Your task to perform on an android device: toggle pop-ups in chrome Image 0: 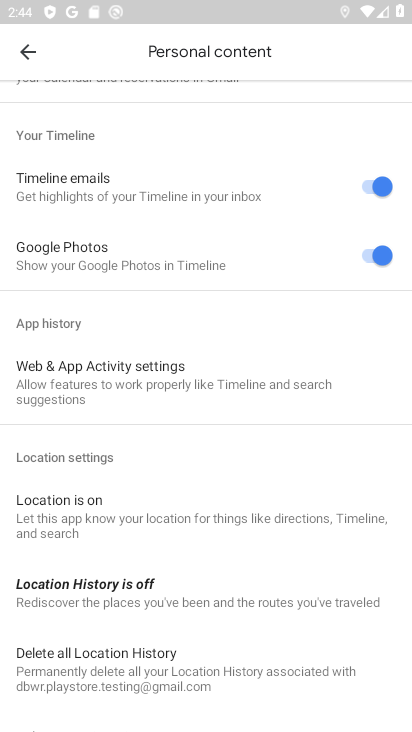
Step 0: press home button
Your task to perform on an android device: toggle pop-ups in chrome Image 1: 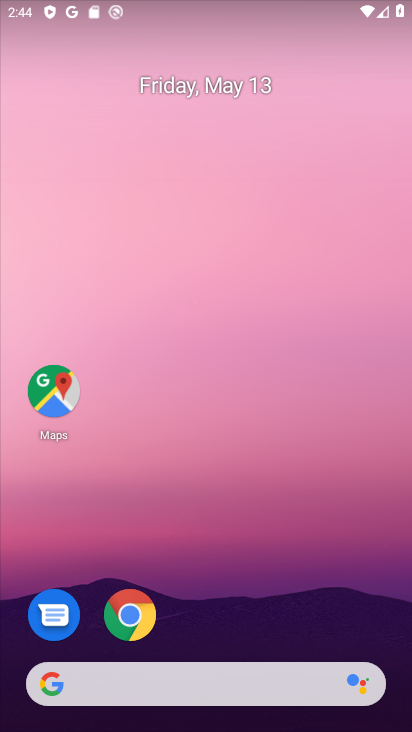
Step 1: drag from (256, 679) to (359, 283)
Your task to perform on an android device: toggle pop-ups in chrome Image 2: 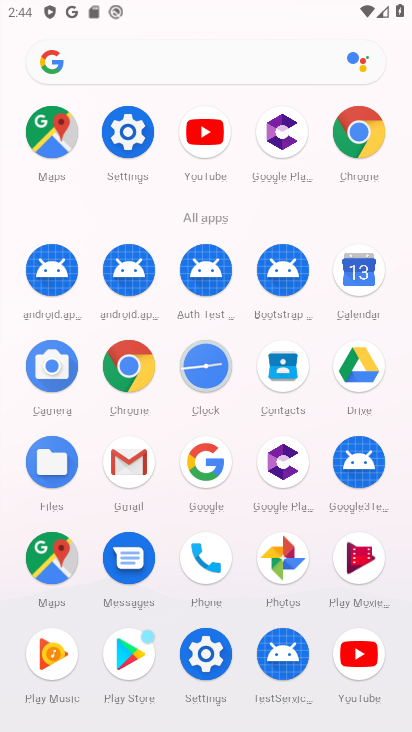
Step 2: click (357, 141)
Your task to perform on an android device: toggle pop-ups in chrome Image 3: 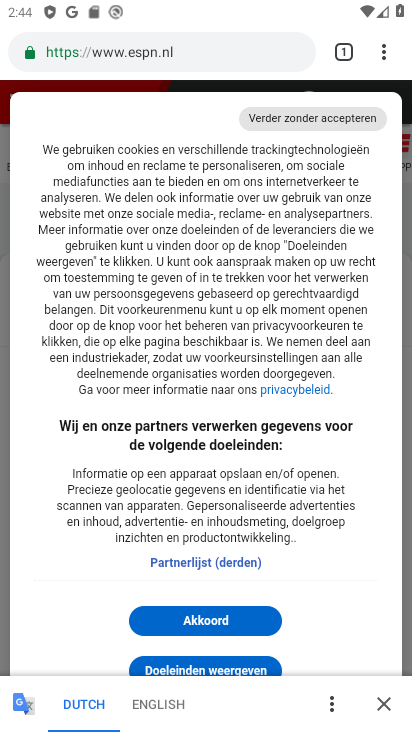
Step 3: drag from (389, 54) to (236, 615)
Your task to perform on an android device: toggle pop-ups in chrome Image 4: 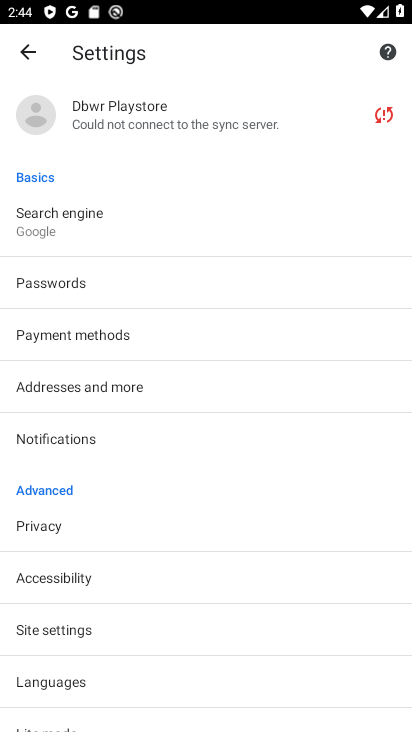
Step 4: drag from (184, 595) to (366, 339)
Your task to perform on an android device: toggle pop-ups in chrome Image 5: 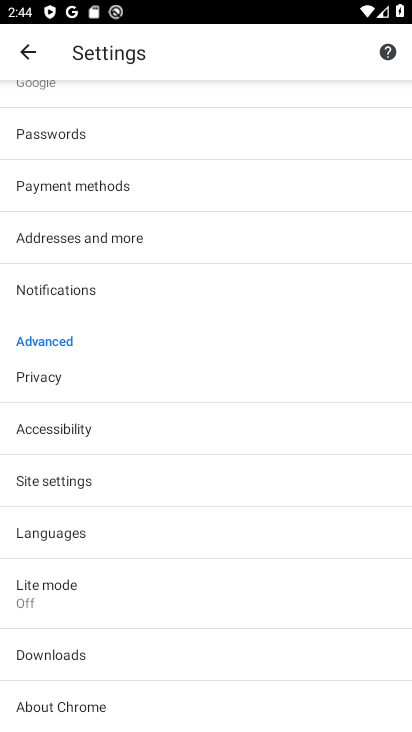
Step 5: click (138, 469)
Your task to perform on an android device: toggle pop-ups in chrome Image 6: 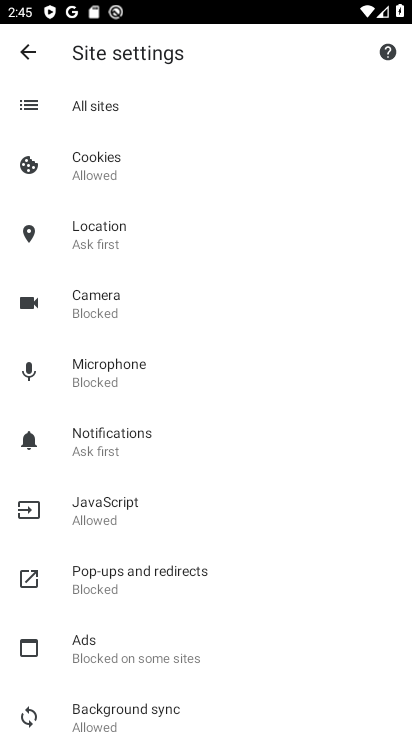
Step 6: click (196, 569)
Your task to perform on an android device: toggle pop-ups in chrome Image 7: 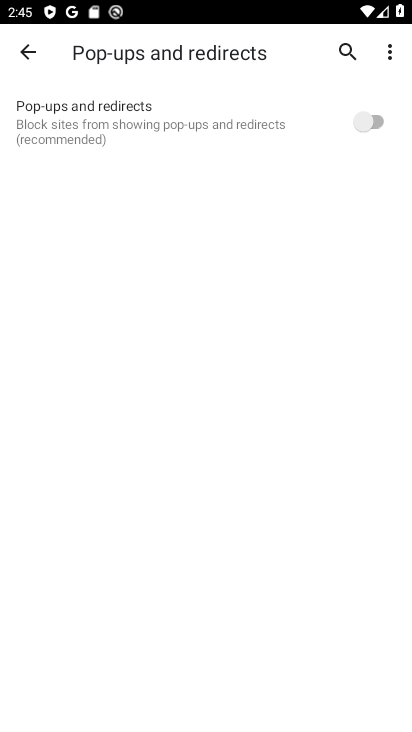
Step 7: click (380, 119)
Your task to perform on an android device: toggle pop-ups in chrome Image 8: 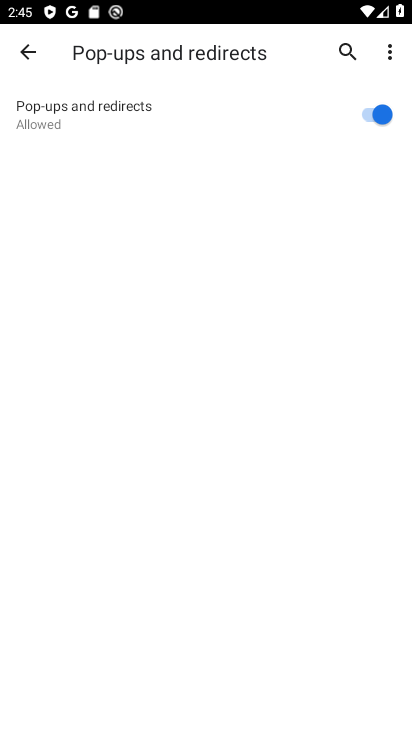
Step 8: task complete